Your task to perform on an android device: Set an alarm for 12pm Image 0: 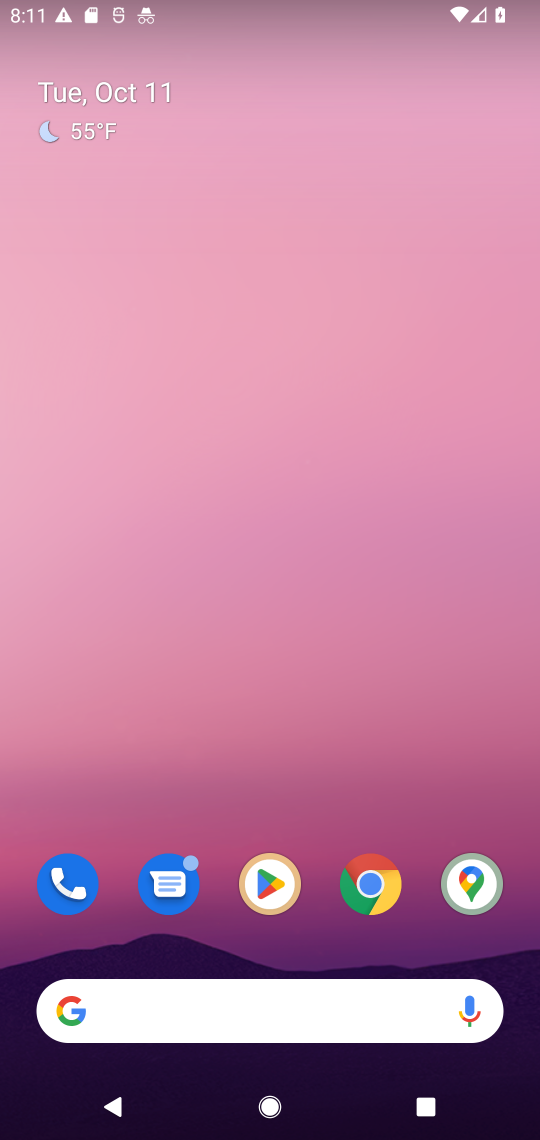
Step 0: drag from (323, 941) to (328, 53)
Your task to perform on an android device: Set an alarm for 12pm Image 1: 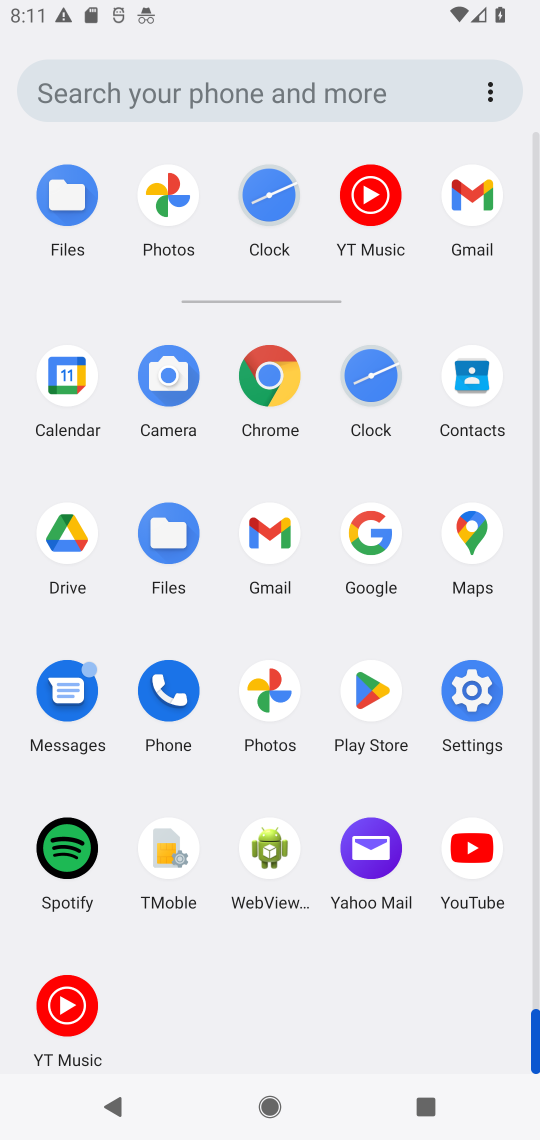
Step 1: click (375, 375)
Your task to perform on an android device: Set an alarm for 12pm Image 2: 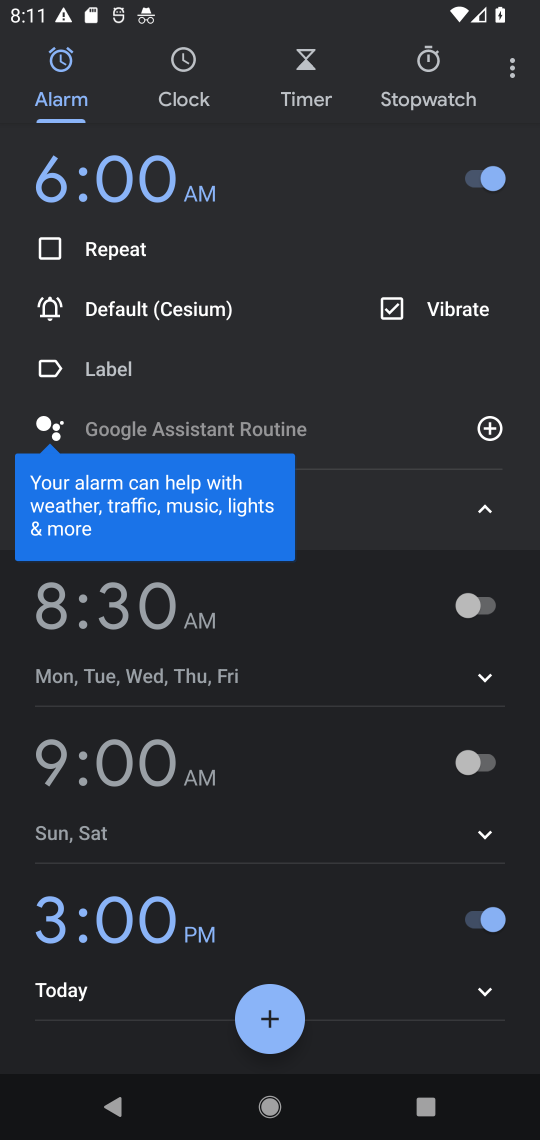
Step 2: click (268, 1018)
Your task to perform on an android device: Set an alarm for 12pm Image 3: 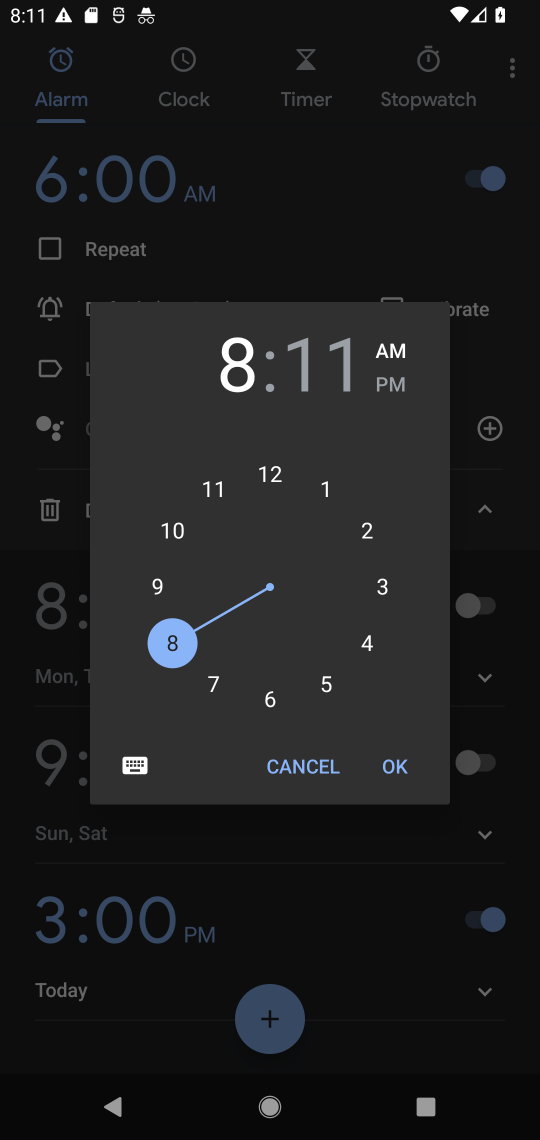
Step 3: drag from (176, 635) to (283, 476)
Your task to perform on an android device: Set an alarm for 12pm Image 4: 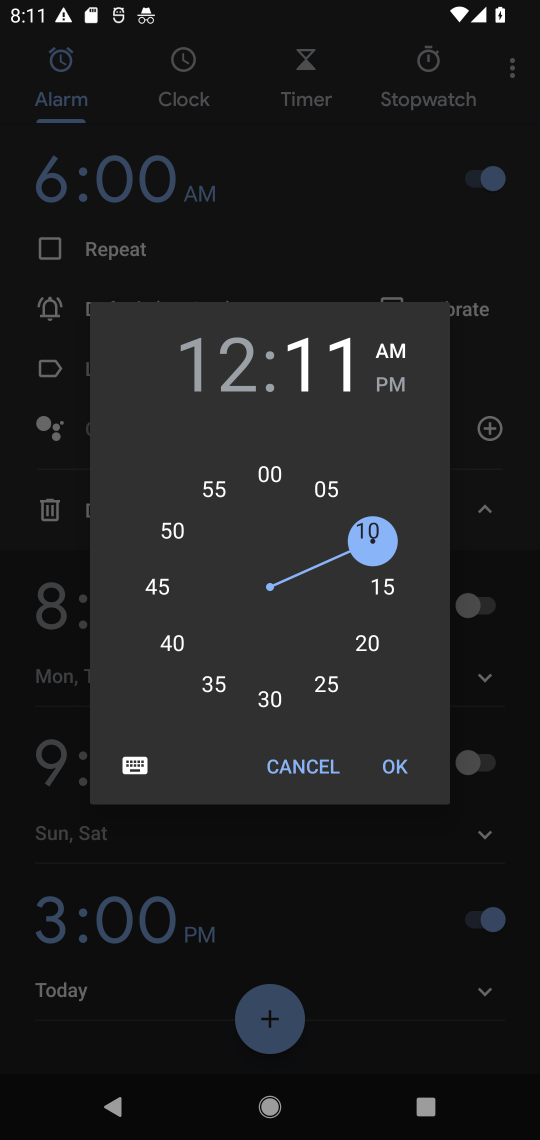
Step 4: drag from (373, 546) to (269, 463)
Your task to perform on an android device: Set an alarm for 12pm Image 5: 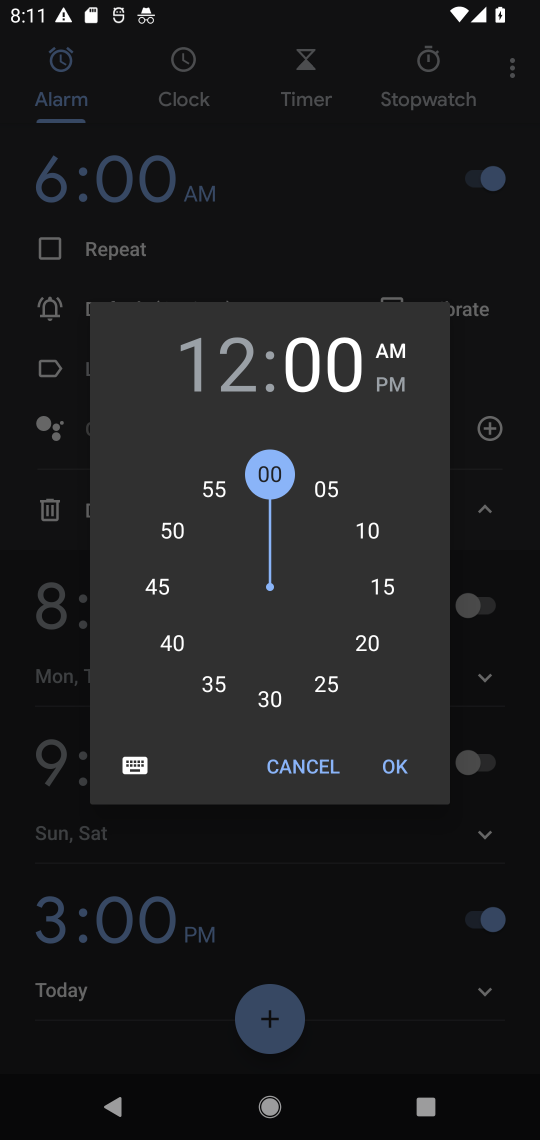
Step 5: click (389, 386)
Your task to perform on an android device: Set an alarm for 12pm Image 6: 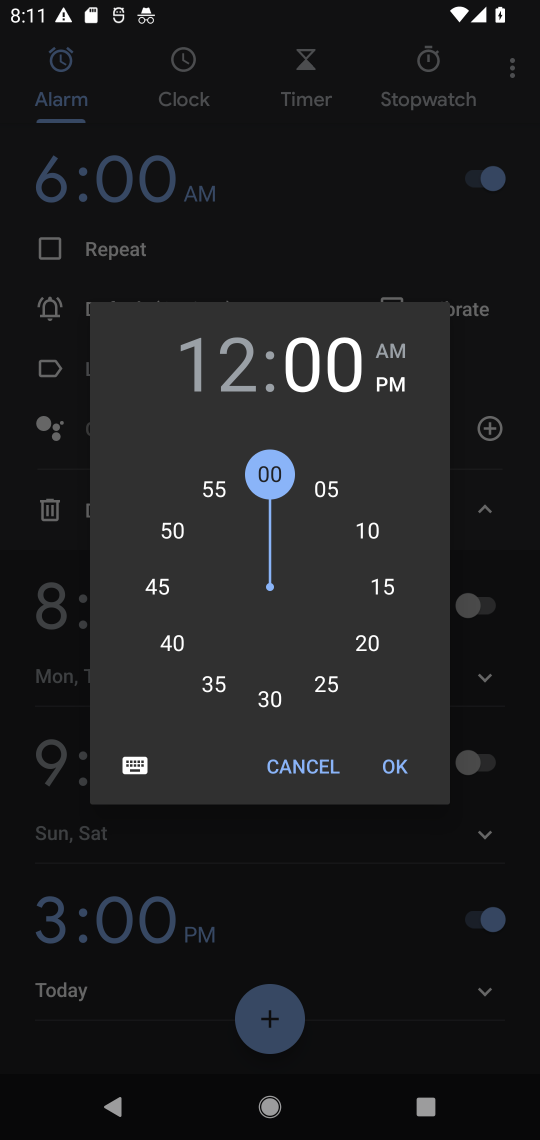
Step 6: click (395, 756)
Your task to perform on an android device: Set an alarm for 12pm Image 7: 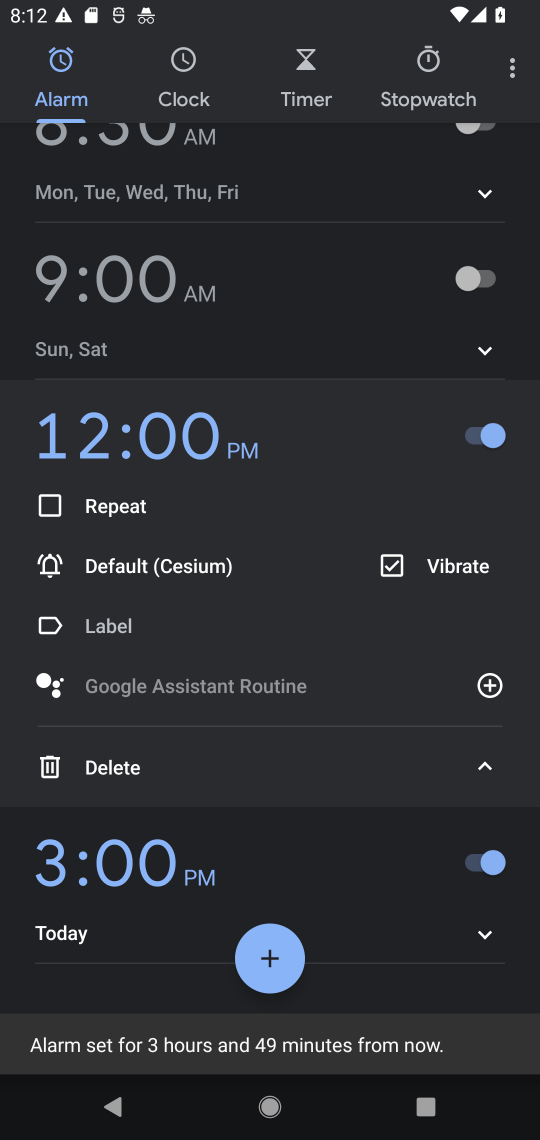
Step 7: task complete